Your task to perform on an android device: toggle wifi Image 0: 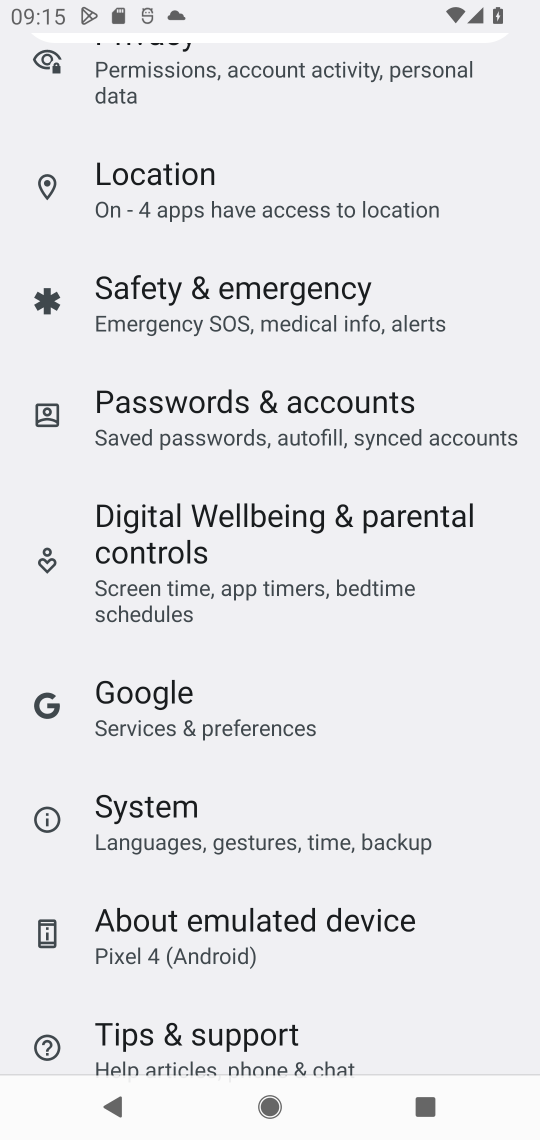
Step 0: drag from (296, 249) to (155, 979)
Your task to perform on an android device: toggle wifi Image 1: 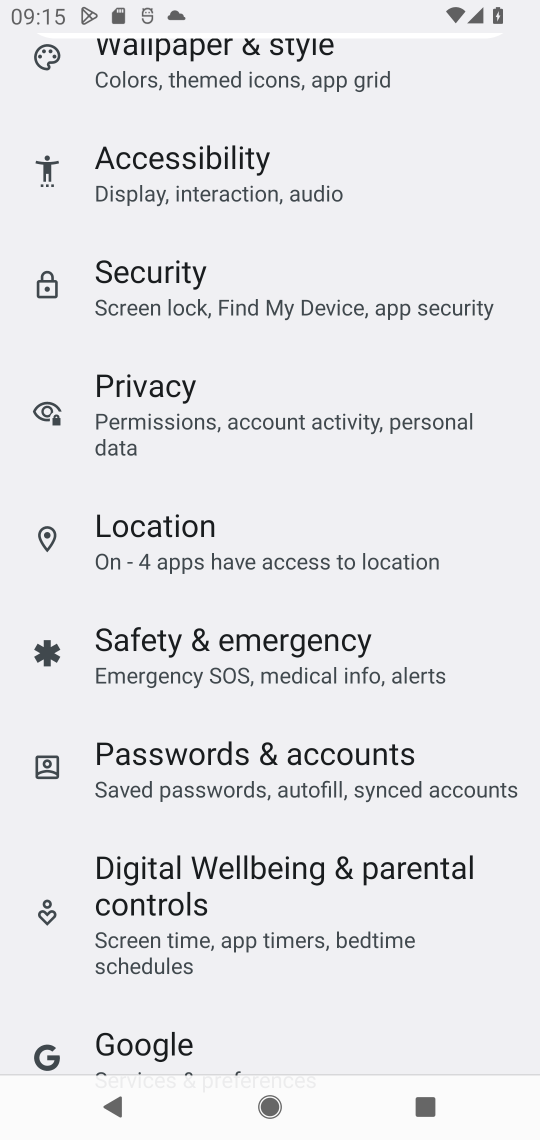
Step 1: drag from (424, 180) to (353, 1082)
Your task to perform on an android device: toggle wifi Image 2: 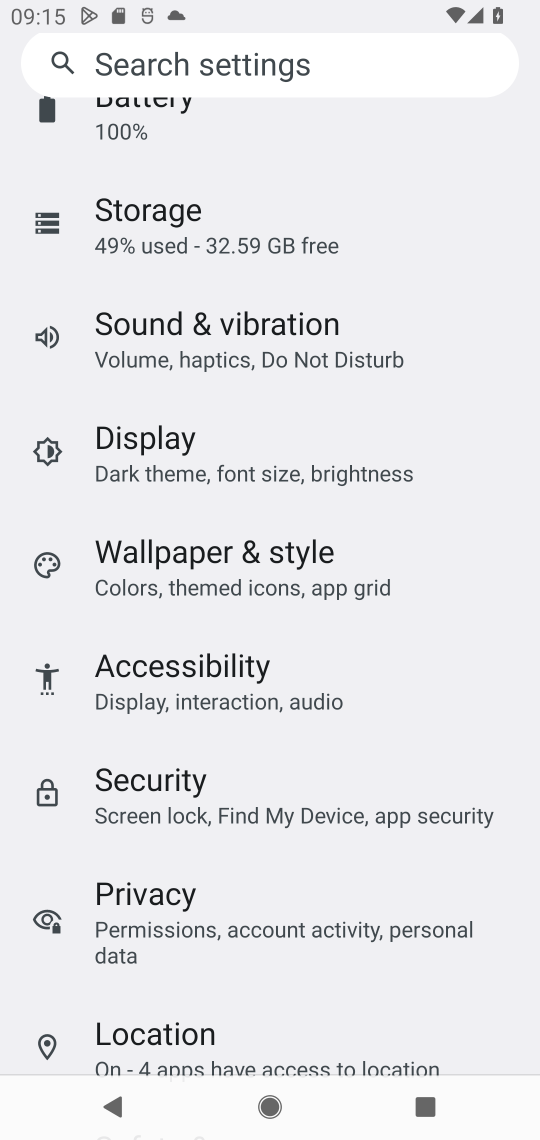
Step 2: drag from (393, 234) to (331, 1094)
Your task to perform on an android device: toggle wifi Image 3: 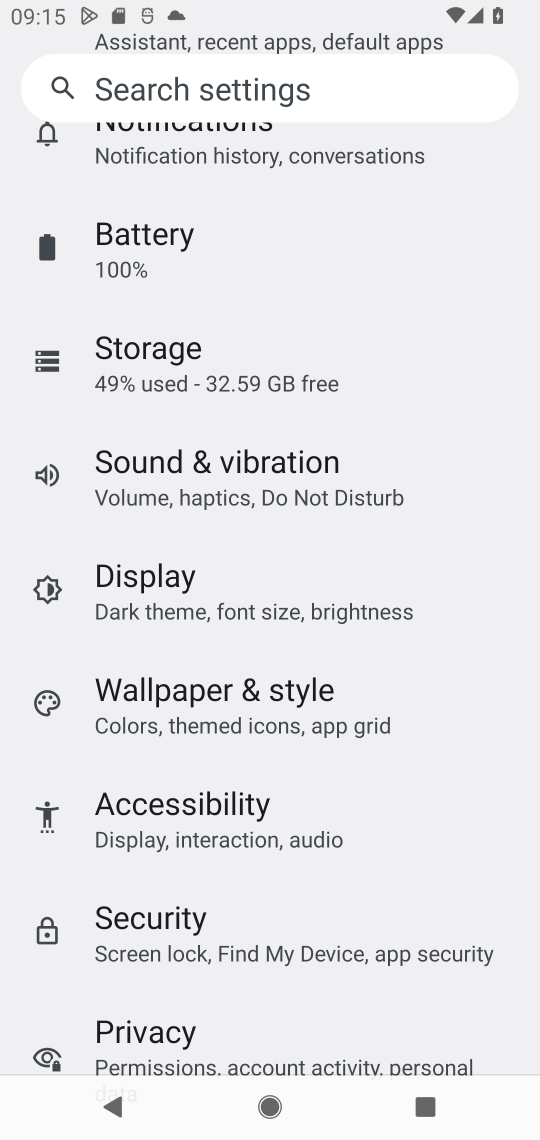
Step 3: drag from (378, 219) to (322, 1097)
Your task to perform on an android device: toggle wifi Image 4: 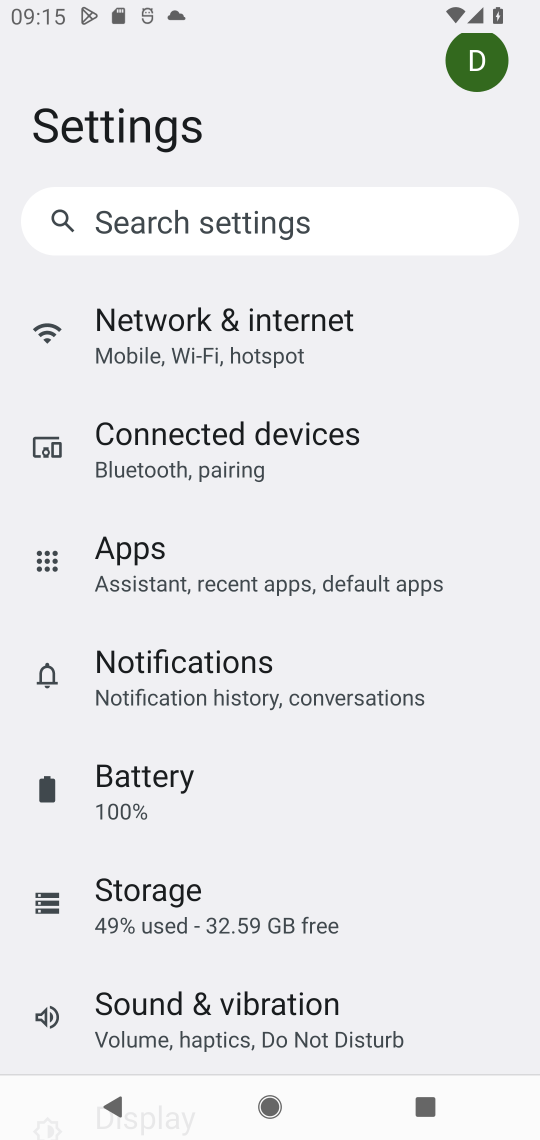
Step 4: click (331, 357)
Your task to perform on an android device: toggle wifi Image 5: 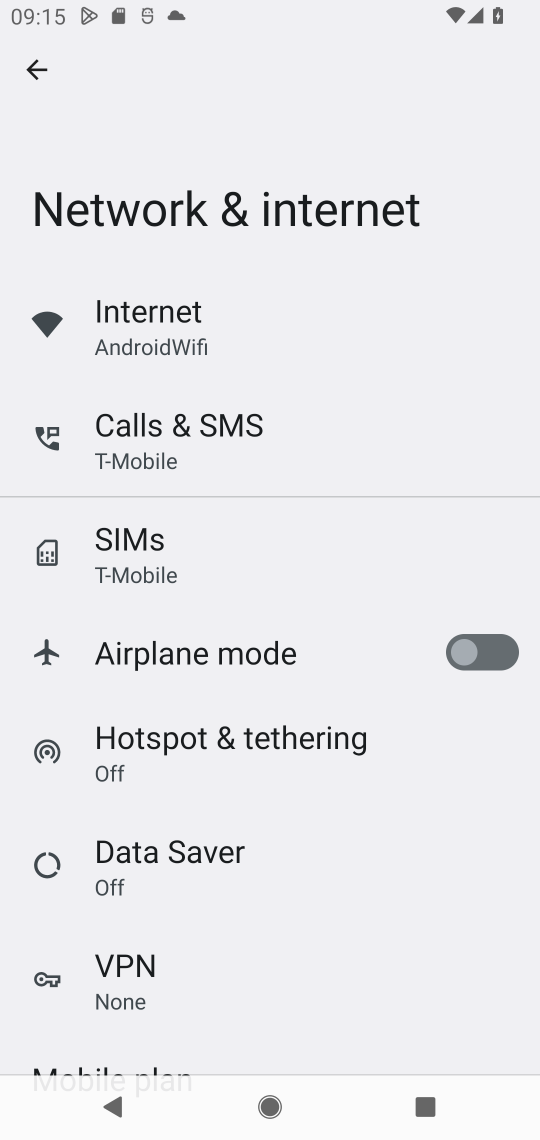
Step 5: click (315, 330)
Your task to perform on an android device: toggle wifi Image 6: 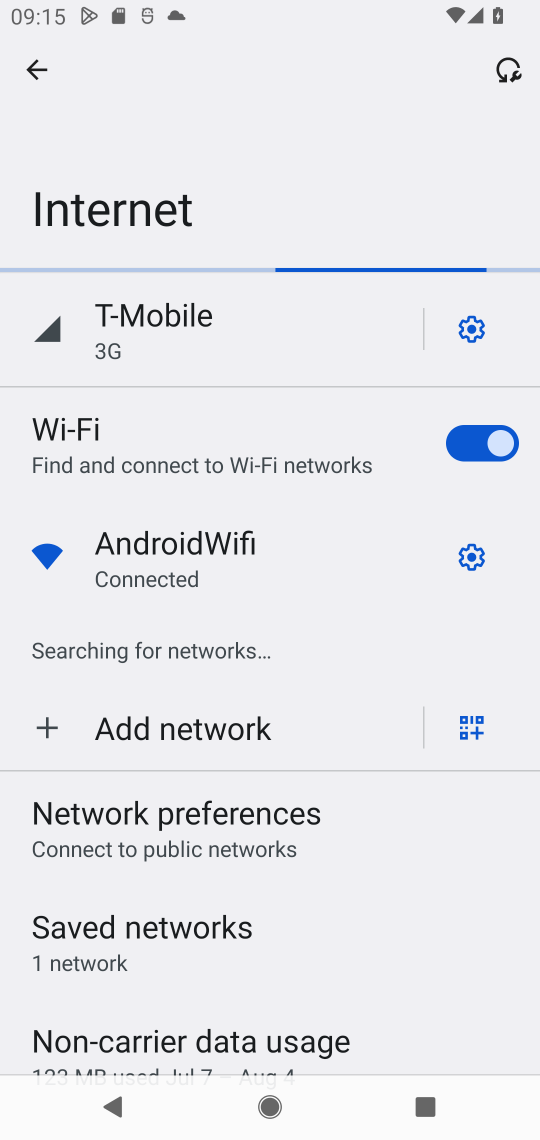
Step 6: task complete